Your task to perform on an android device: What is the capital of Mexico? Image 0: 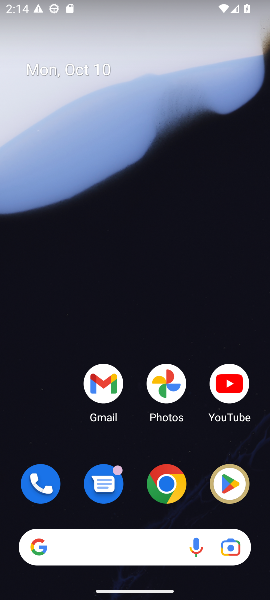
Step 0: click (170, 477)
Your task to perform on an android device: What is the capital of Mexico? Image 1: 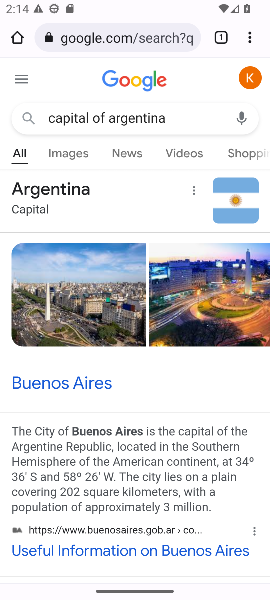
Step 1: click (146, 37)
Your task to perform on an android device: What is the capital of Mexico? Image 2: 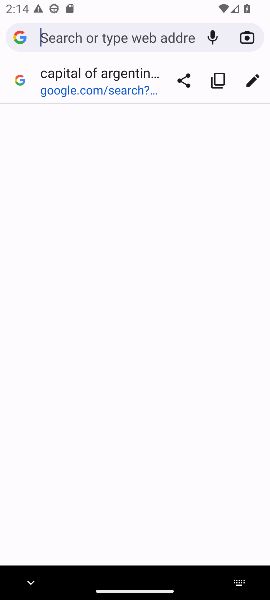
Step 2: type "mexico capital"
Your task to perform on an android device: What is the capital of Mexico? Image 3: 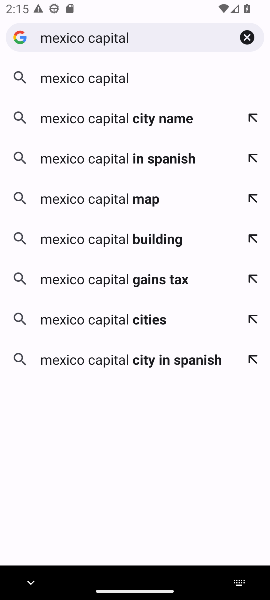
Step 3: click (94, 70)
Your task to perform on an android device: What is the capital of Mexico? Image 4: 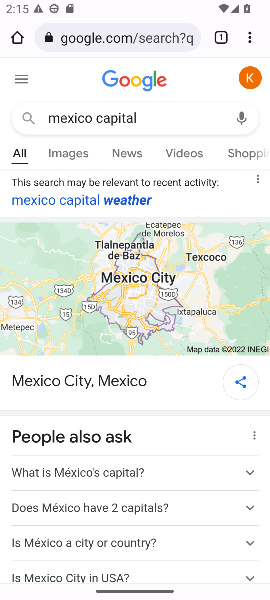
Step 4: drag from (191, 399) to (175, 207)
Your task to perform on an android device: What is the capital of Mexico? Image 5: 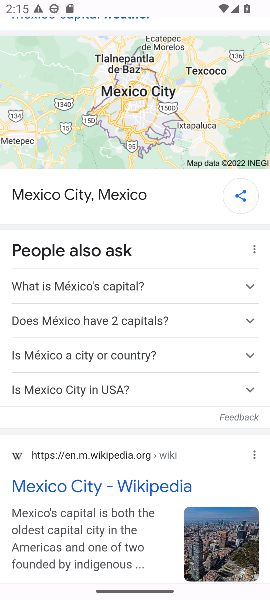
Step 5: drag from (176, 464) to (141, 202)
Your task to perform on an android device: What is the capital of Mexico? Image 6: 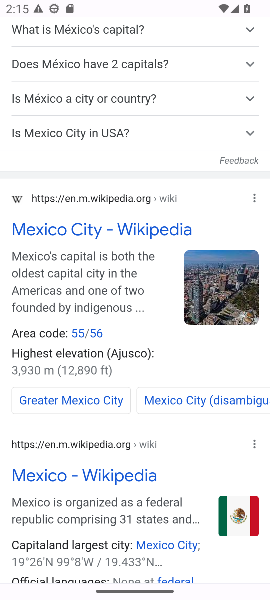
Step 6: drag from (189, 432) to (170, 207)
Your task to perform on an android device: What is the capital of Mexico? Image 7: 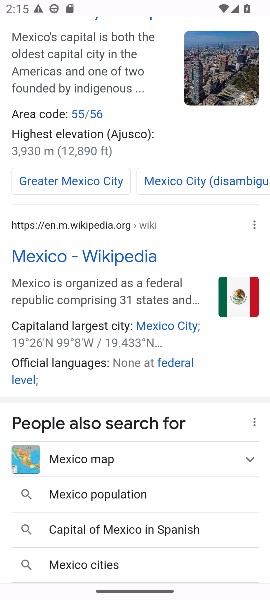
Step 7: click (175, 429)
Your task to perform on an android device: What is the capital of Mexico? Image 8: 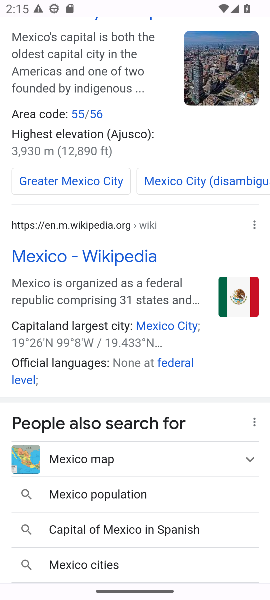
Step 8: task complete